Your task to perform on an android device: open app "Viber Messenger" (install if not already installed) and enter user name: "blameless@icloud.com" and password: "Yoknapatawpha" Image 0: 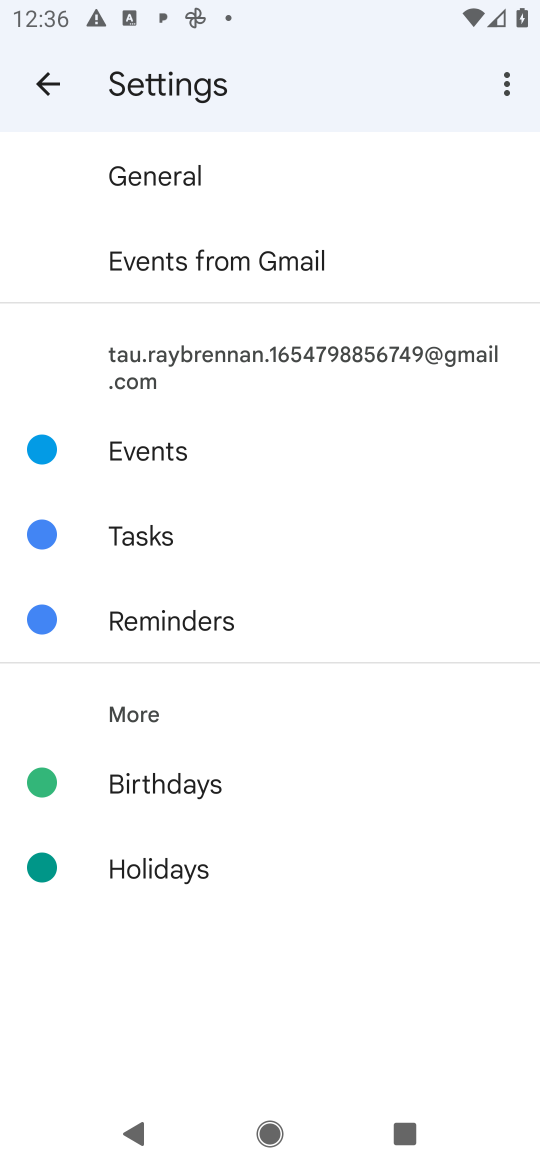
Step 0: press home button
Your task to perform on an android device: open app "Viber Messenger" (install if not already installed) and enter user name: "blameless@icloud.com" and password: "Yoknapatawpha" Image 1: 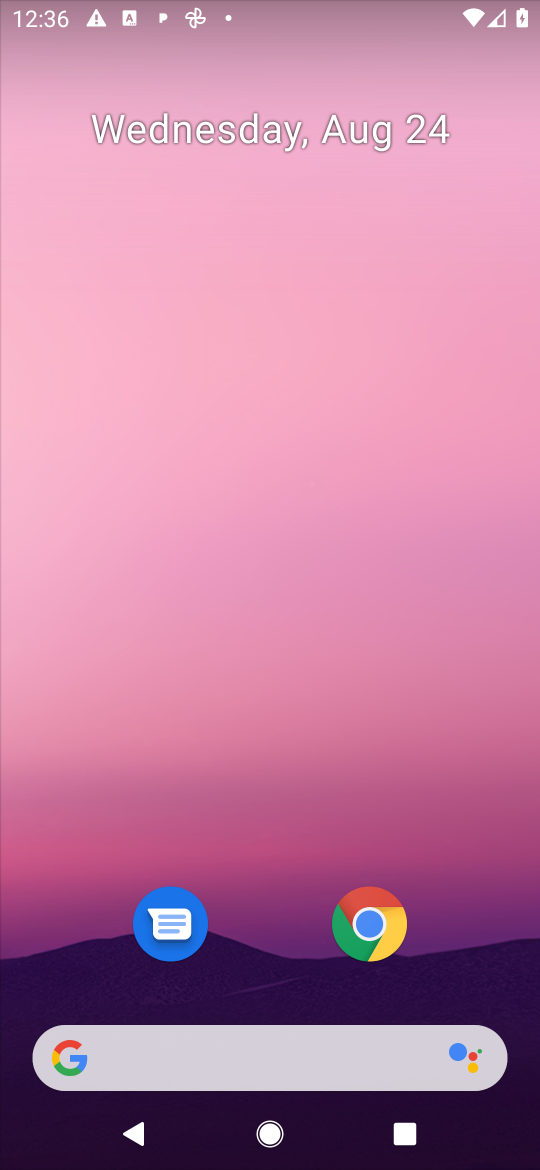
Step 1: drag from (484, 971) to (497, 137)
Your task to perform on an android device: open app "Viber Messenger" (install if not already installed) and enter user name: "blameless@icloud.com" and password: "Yoknapatawpha" Image 2: 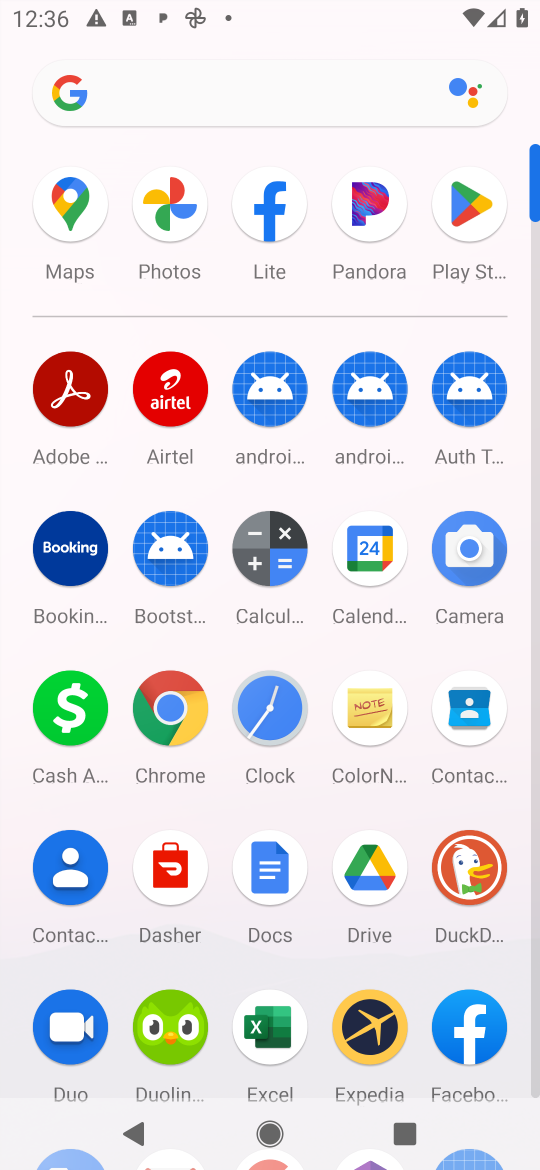
Step 2: click (475, 212)
Your task to perform on an android device: open app "Viber Messenger" (install if not already installed) and enter user name: "blameless@icloud.com" and password: "Yoknapatawpha" Image 3: 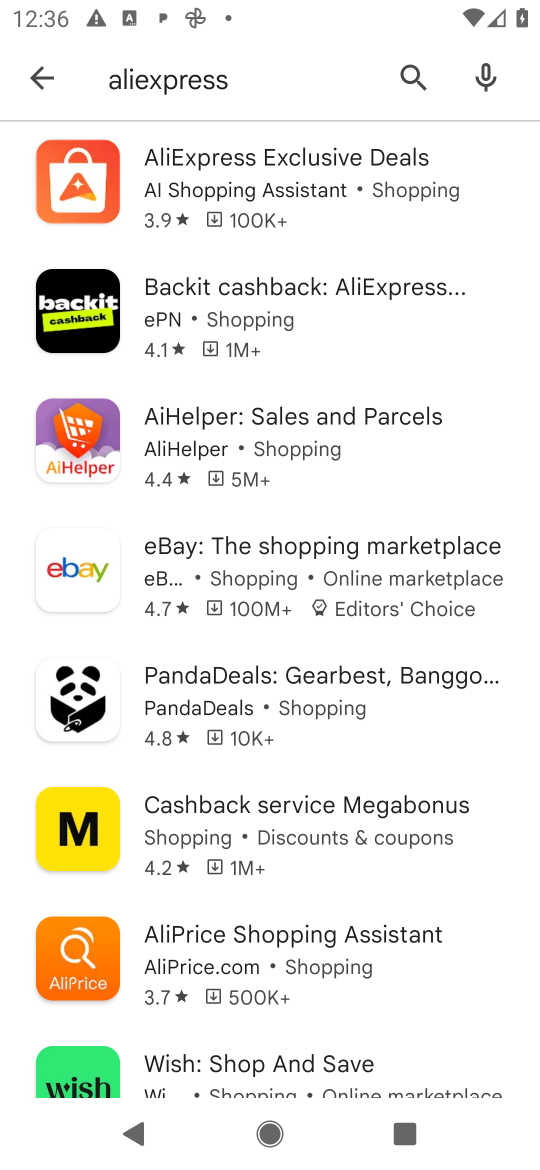
Step 3: press back button
Your task to perform on an android device: open app "Viber Messenger" (install if not already installed) and enter user name: "blameless@icloud.com" and password: "Yoknapatawpha" Image 4: 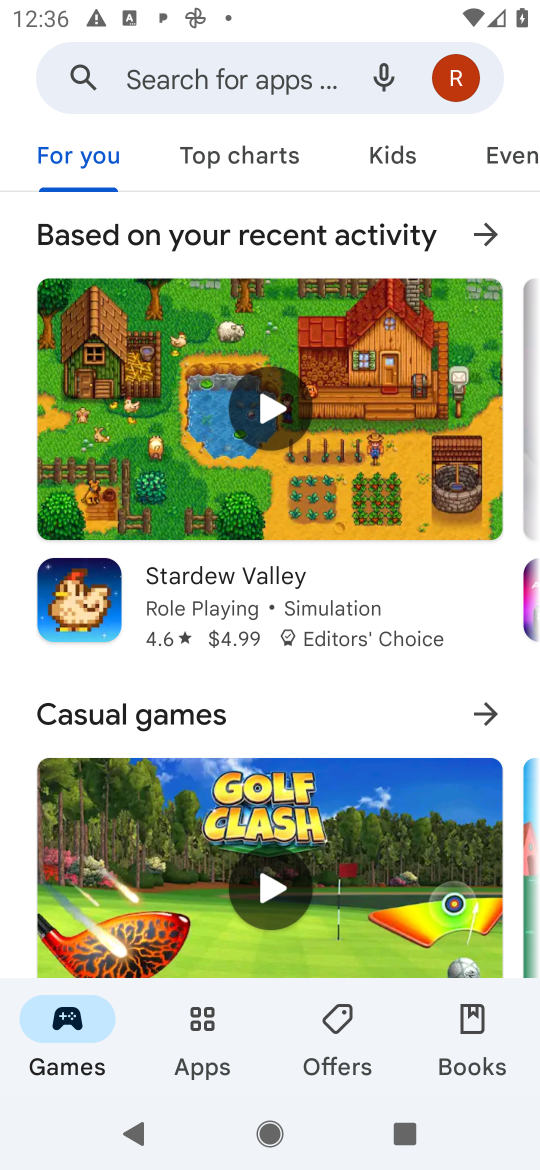
Step 4: click (193, 73)
Your task to perform on an android device: open app "Viber Messenger" (install if not already installed) and enter user name: "blameless@icloud.com" and password: "Yoknapatawpha" Image 5: 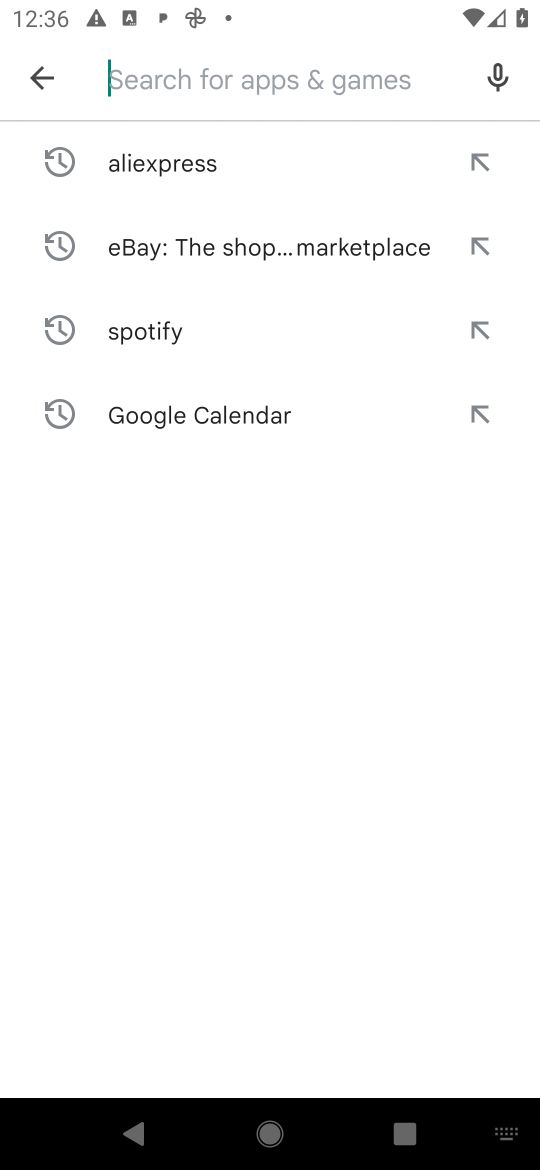
Step 5: type "Viber Messenger"
Your task to perform on an android device: open app "Viber Messenger" (install if not already installed) and enter user name: "blameless@icloud.com" and password: "Yoknapatawpha" Image 6: 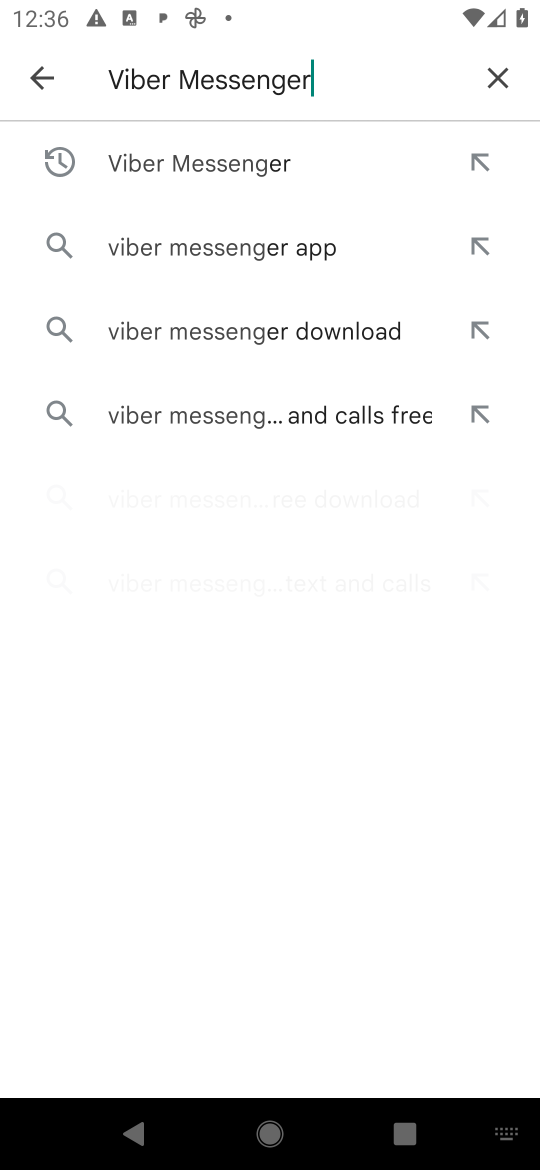
Step 6: press enter
Your task to perform on an android device: open app "Viber Messenger" (install if not already installed) and enter user name: "blameless@icloud.com" and password: "Yoknapatawpha" Image 7: 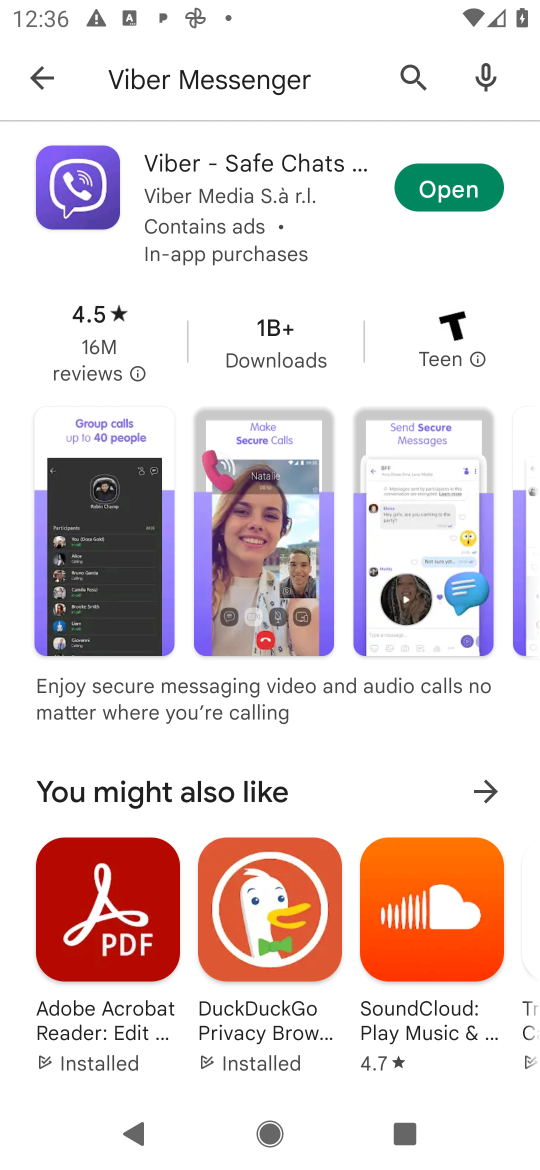
Step 7: click (191, 160)
Your task to perform on an android device: open app "Viber Messenger" (install if not already installed) and enter user name: "blameless@icloud.com" and password: "Yoknapatawpha" Image 8: 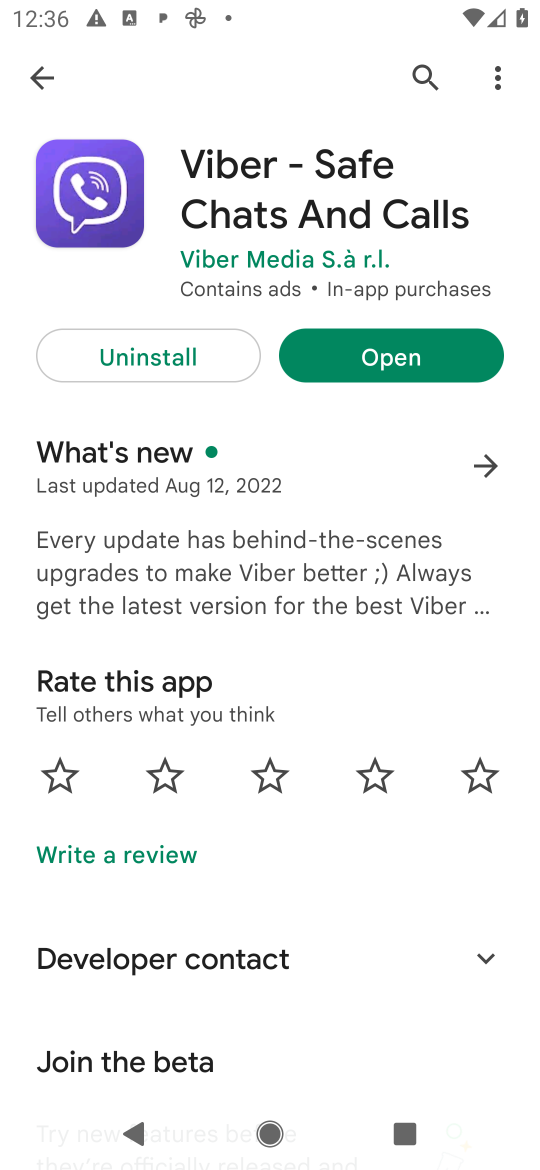
Step 8: click (448, 184)
Your task to perform on an android device: open app "Viber Messenger" (install if not already installed) and enter user name: "blameless@icloud.com" and password: "Yoknapatawpha" Image 9: 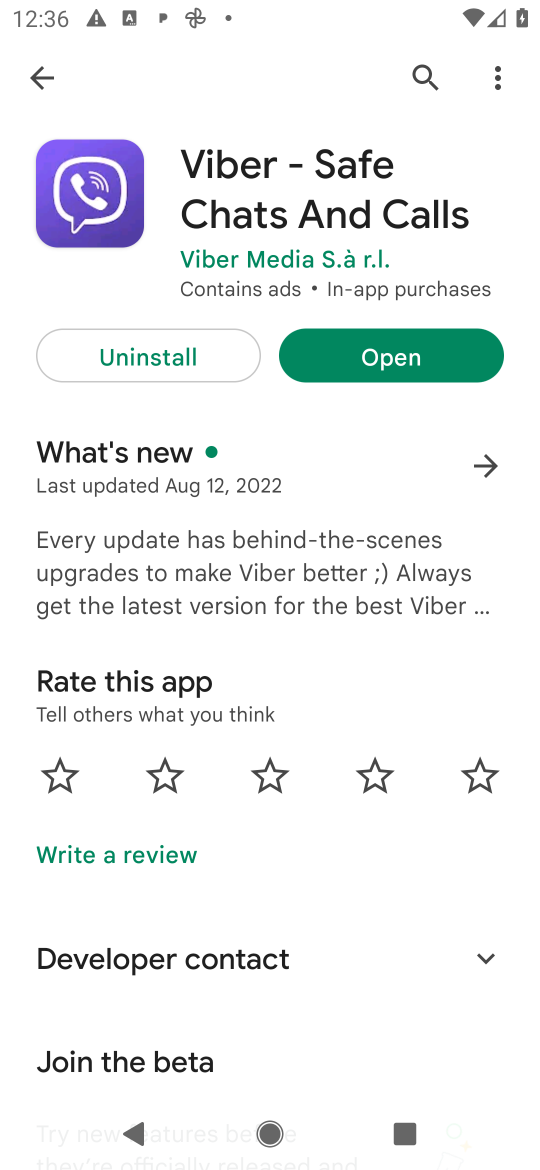
Step 9: click (394, 354)
Your task to perform on an android device: open app "Viber Messenger" (install if not already installed) and enter user name: "blameless@icloud.com" and password: "Yoknapatawpha" Image 10: 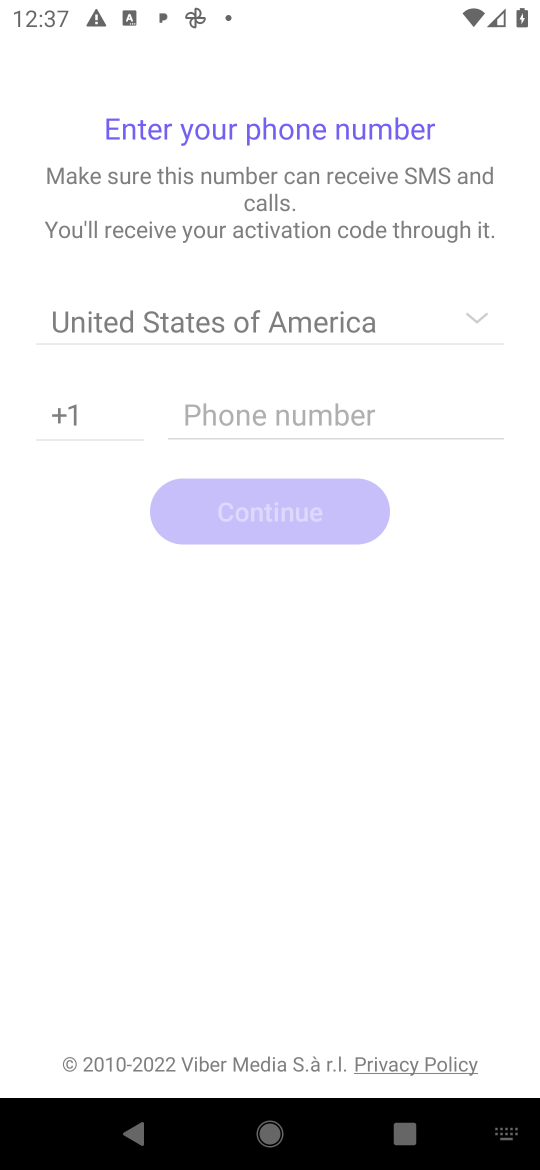
Step 10: task complete